Your task to perform on an android device: Set the phone to "Do not disturb". Image 0: 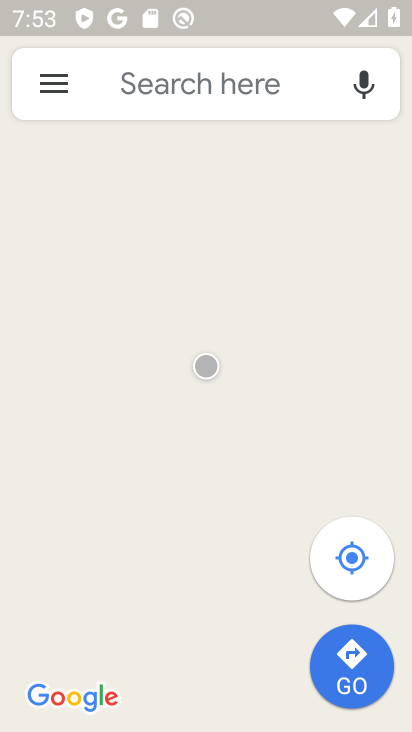
Step 0: press back button
Your task to perform on an android device: Set the phone to "Do not disturb". Image 1: 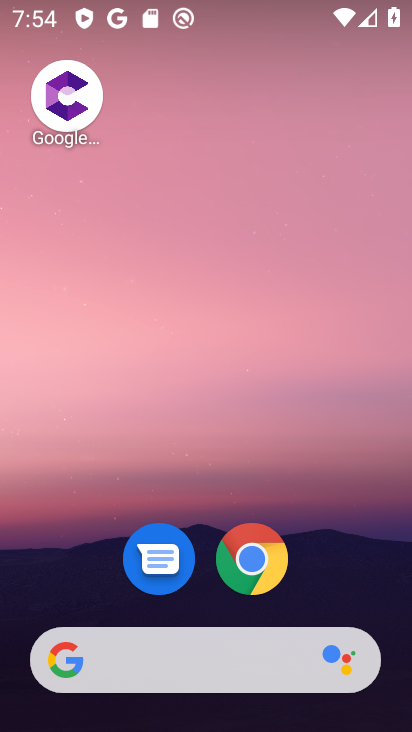
Step 1: drag from (186, 16) to (219, 545)
Your task to perform on an android device: Set the phone to "Do not disturb". Image 2: 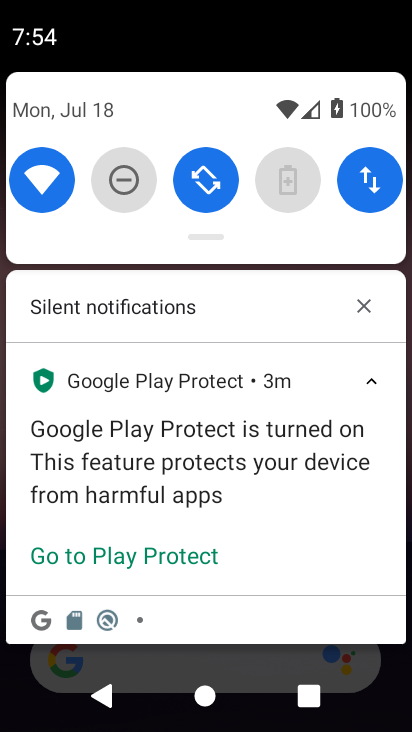
Step 2: click (120, 181)
Your task to perform on an android device: Set the phone to "Do not disturb". Image 3: 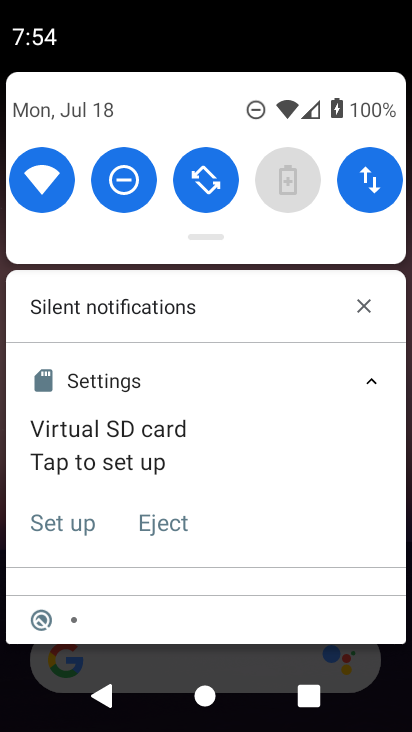
Step 3: task complete